Your task to perform on an android device: Find coffee shops on Maps Image 0: 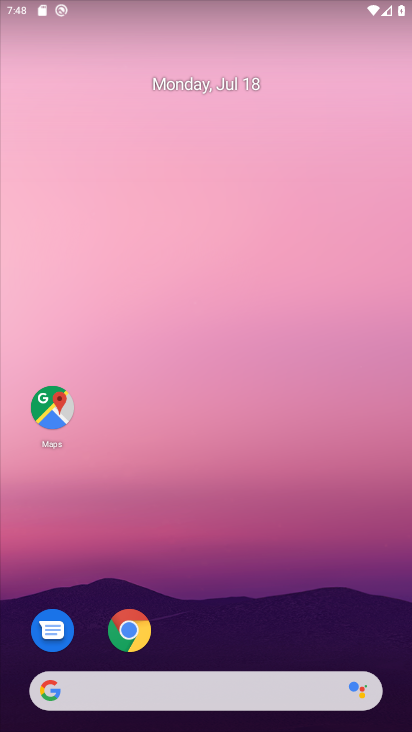
Step 0: drag from (221, 635) to (225, 307)
Your task to perform on an android device: Find coffee shops on Maps Image 1: 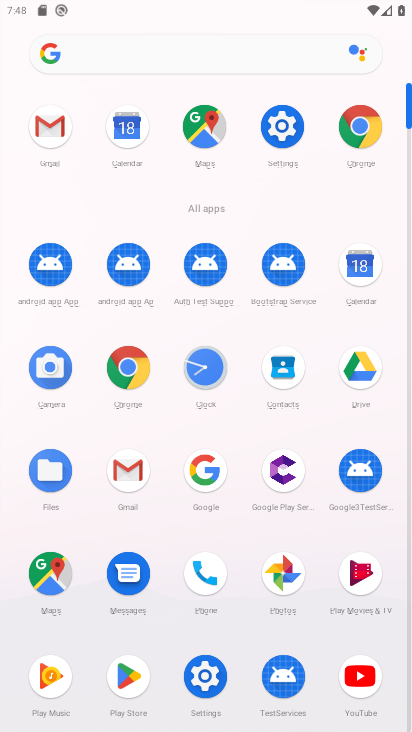
Step 1: click (46, 586)
Your task to perform on an android device: Find coffee shops on Maps Image 2: 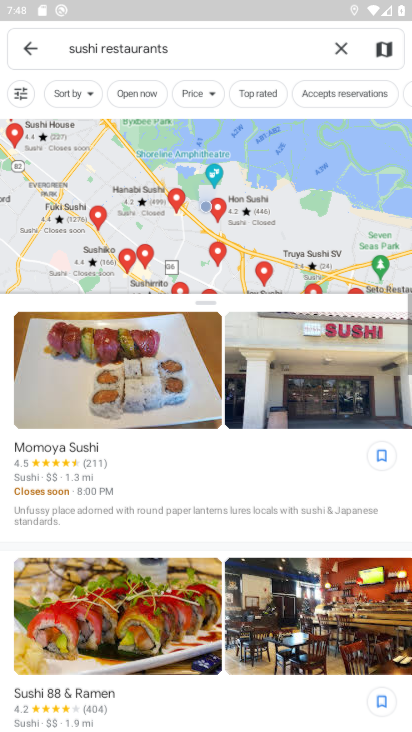
Step 2: click (342, 56)
Your task to perform on an android device: Find coffee shops on Maps Image 3: 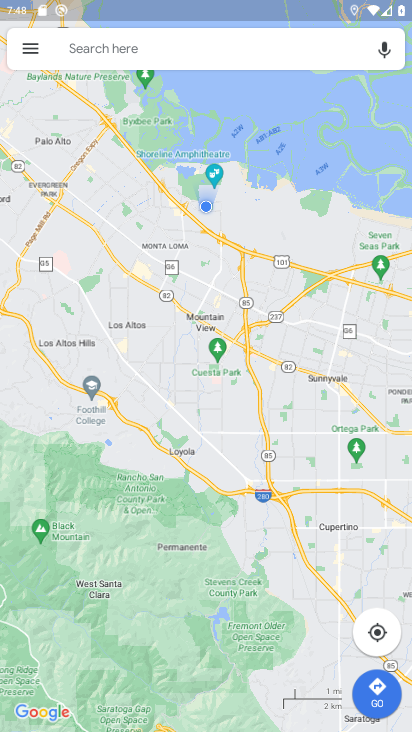
Step 3: click (182, 39)
Your task to perform on an android device: Find coffee shops on Maps Image 4: 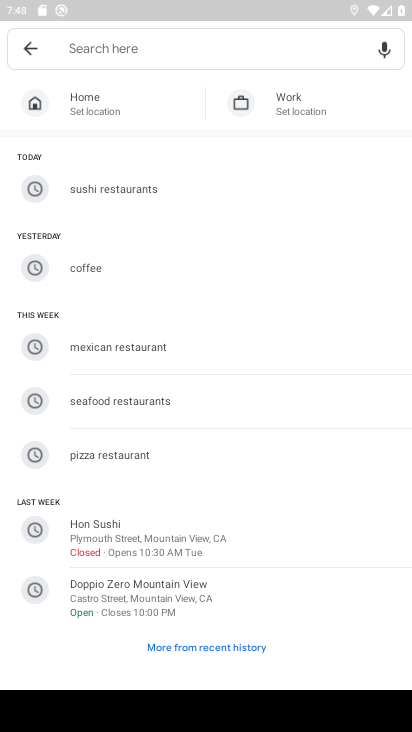
Step 4: click (94, 277)
Your task to perform on an android device: Find coffee shops on Maps Image 5: 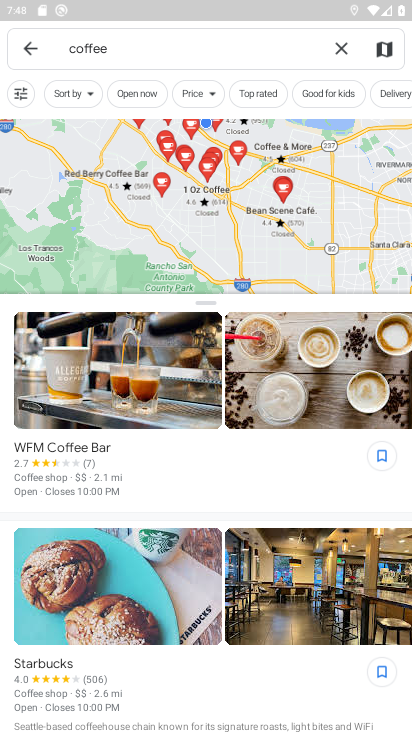
Step 5: task complete